Your task to perform on an android device: Is it going to rain today? Image 0: 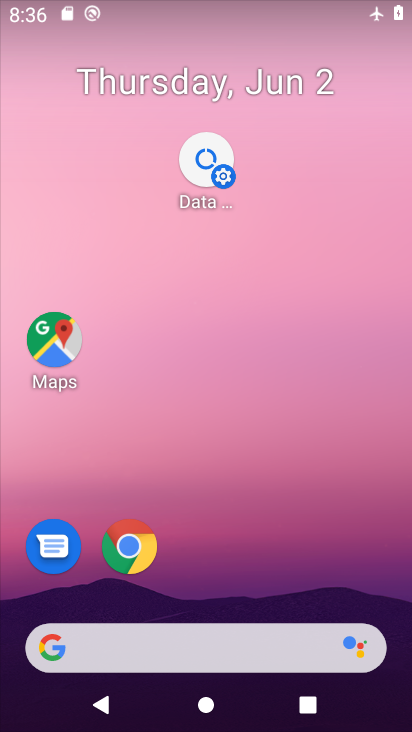
Step 0: drag from (3, 264) to (411, 505)
Your task to perform on an android device: Is it going to rain today? Image 1: 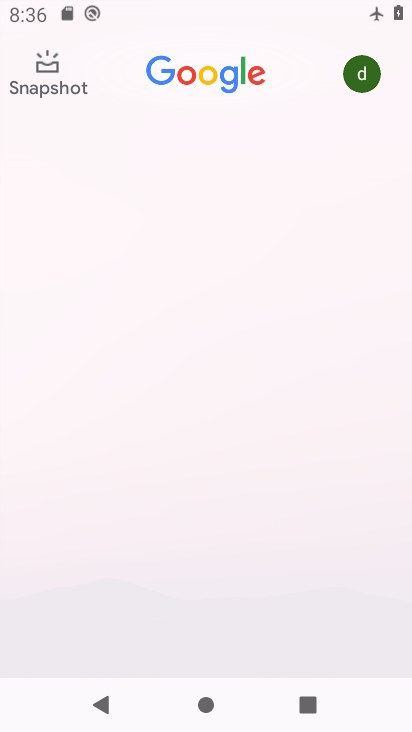
Step 1: task complete